Your task to perform on an android device: turn on location history Image 0: 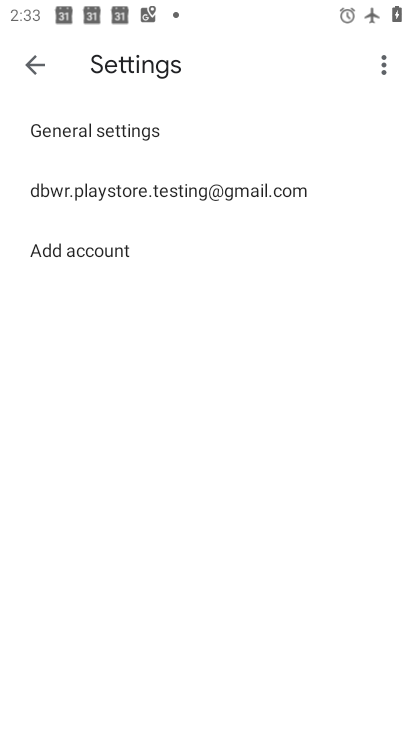
Step 0: press home button
Your task to perform on an android device: turn on location history Image 1: 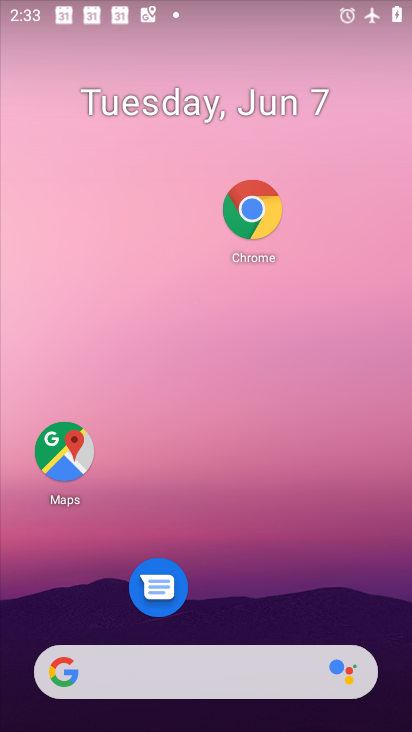
Step 1: drag from (259, 535) to (254, 1)
Your task to perform on an android device: turn on location history Image 2: 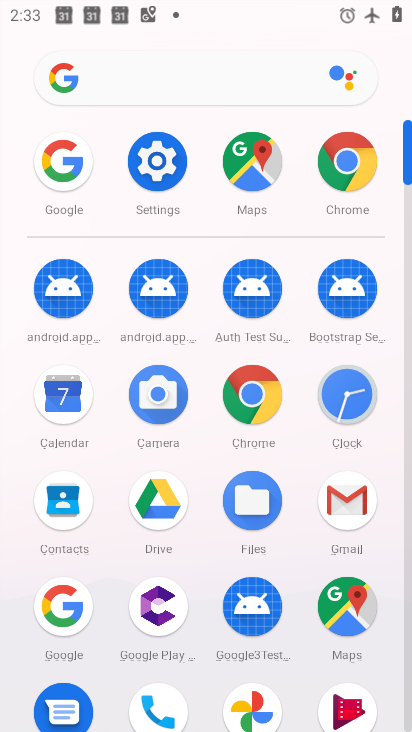
Step 2: click (168, 165)
Your task to perform on an android device: turn on location history Image 3: 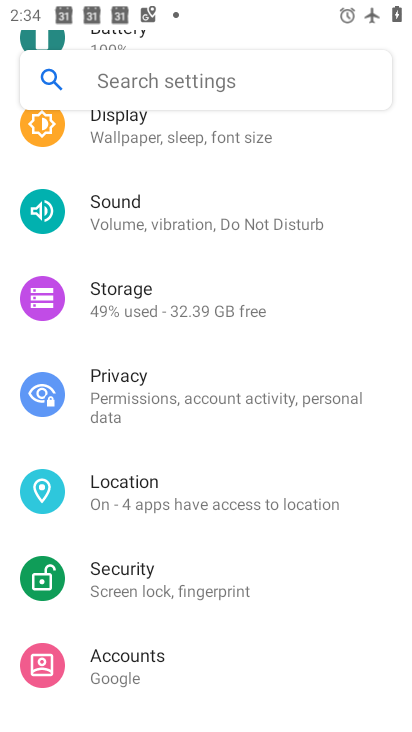
Step 3: drag from (181, 309) to (135, 519)
Your task to perform on an android device: turn on location history Image 4: 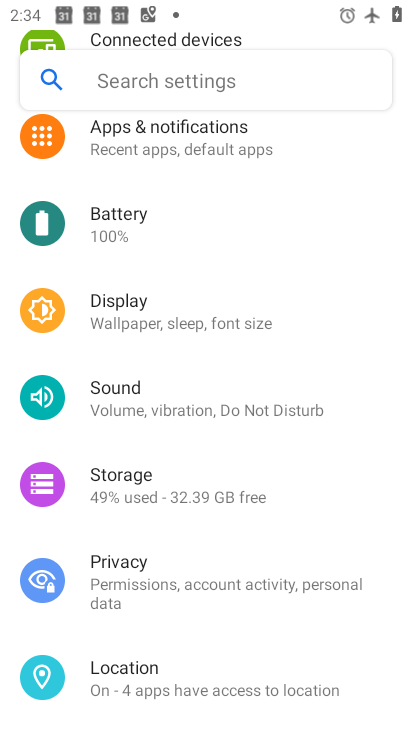
Step 4: click (179, 654)
Your task to perform on an android device: turn on location history Image 5: 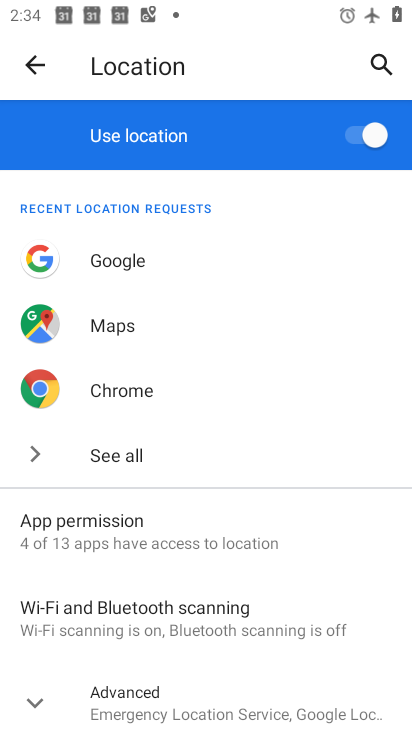
Step 5: drag from (136, 597) to (136, 397)
Your task to perform on an android device: turn on location history Image 6: 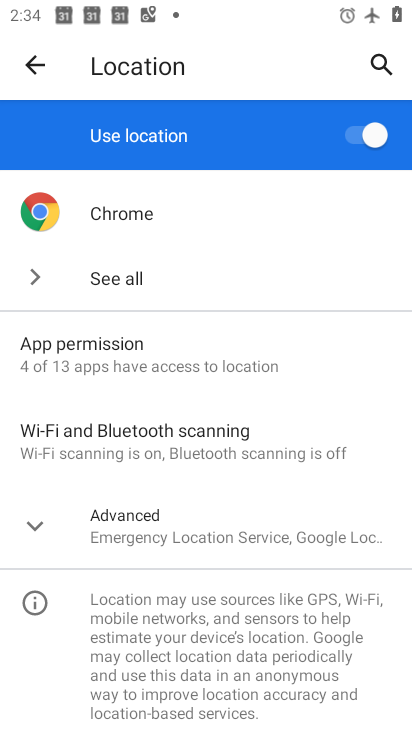
Step 6: click (147, 534)
Your task to perform on an android device: turn on location history Image 7: 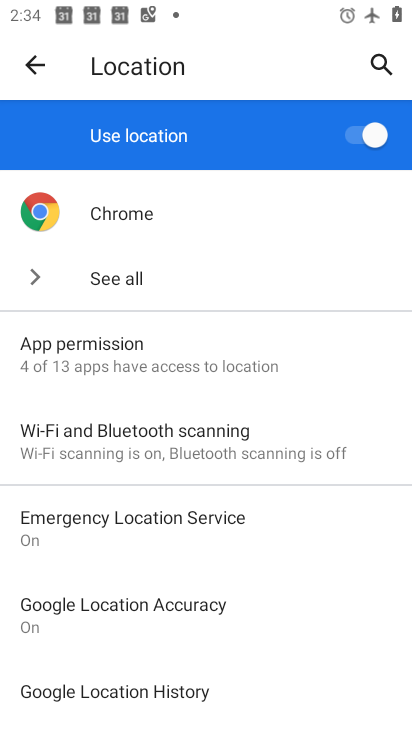
Step 7: click (191, 703)
Your task to perform on an android device: turn on location history Image 8: 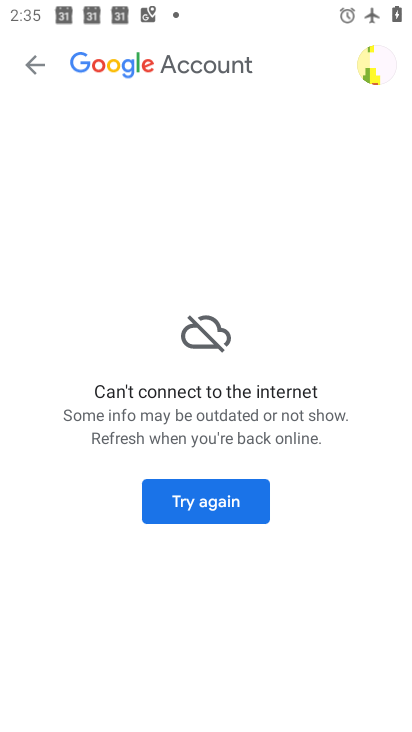
Step 8: task complete